Your task to perform on an android device: Open calendar and show me the second week of next month Image 0: 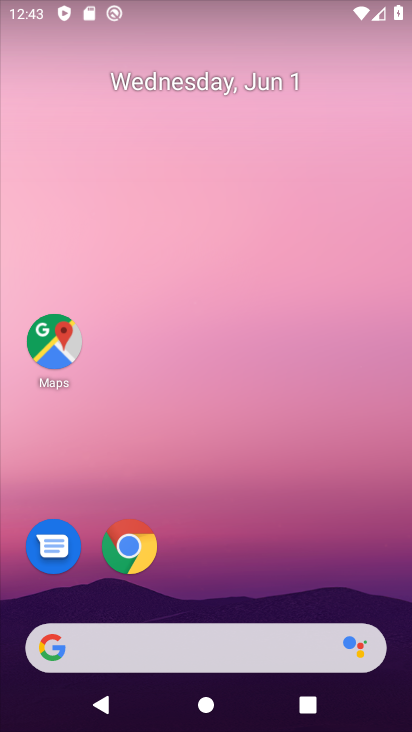
Step 0: drag from (243, 583) to (116, 101)
Your task to perform on an android device: Open calendar and show me the second week of next month Image 1: 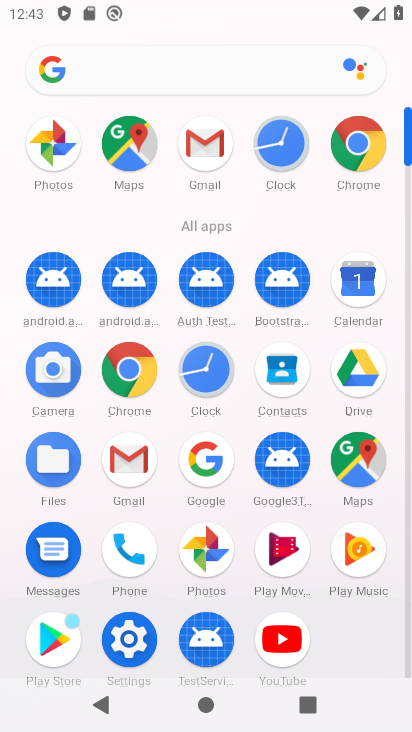
Step 1: click (360, 287)
Your task to perform on an android device: Open calendar and show me the second week of next month Image 2: 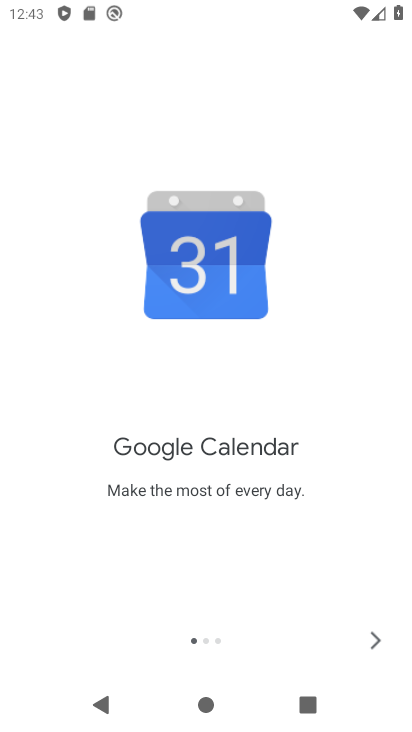
Step 2: click (379, 641)
Your task to perform on an android device: Open calendar and show me the second week of next month Image 3: 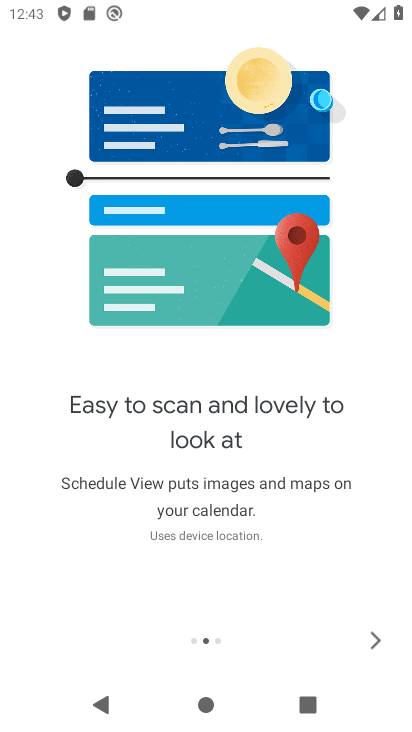
Step 3: drag from (307, 511) to (79, 525)
Your task to perform on an android device: Open calendar and show me the second week of next month Image 4: 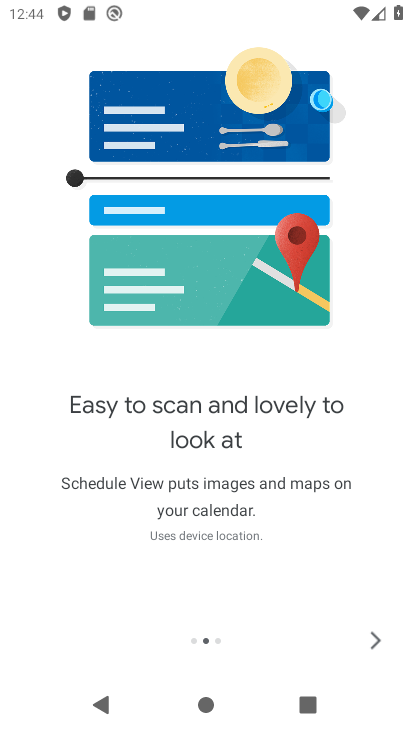
Step 4: click (384, 641)
Your task to perform on an android device: Open calendar and show me the second week of next month Image 5: 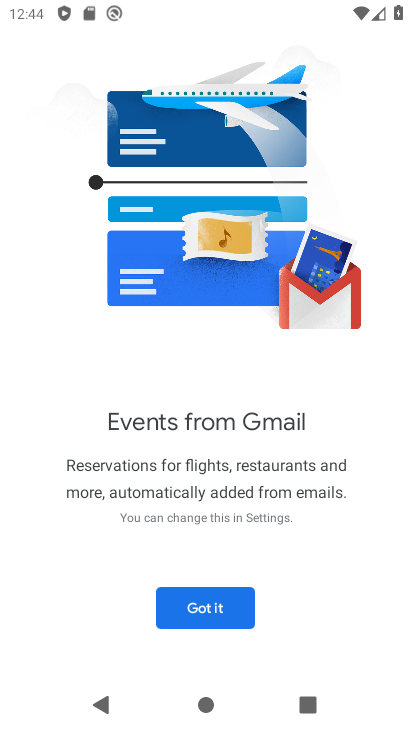
Step 5: click (196, 603)
Your task to perform on an android device: Open calendar and show me the second week of next month Image 6: 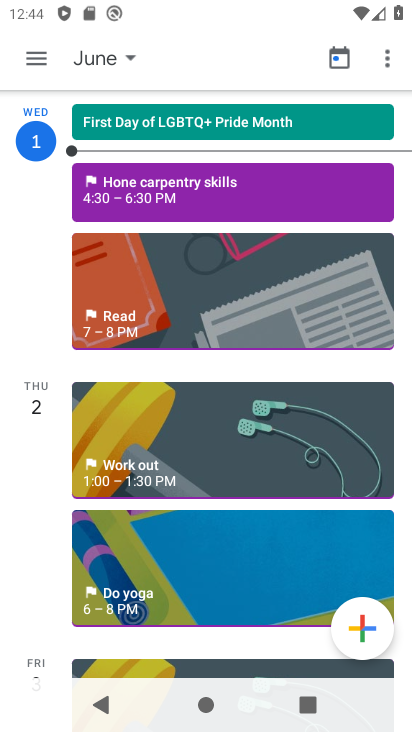
Step 6: click (118, 56)
Your task to perform on an android device: Open calendar and show me the second week of next month Image 7: 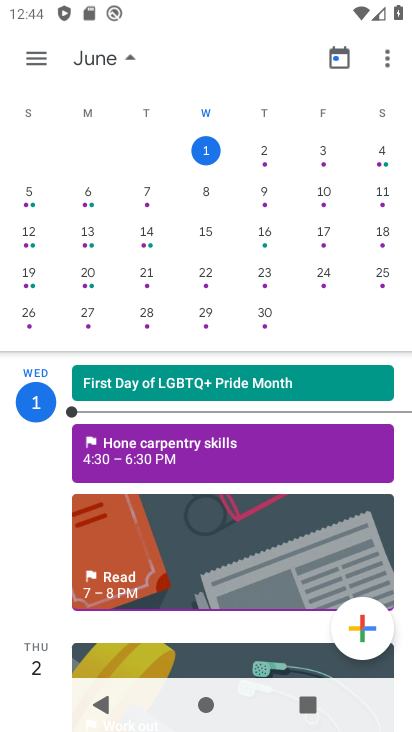
Step 7: drag from (314, 262) to (0, 240)
Your task to perform on an android device: Open calendar and show me the second week of next month Image 8: 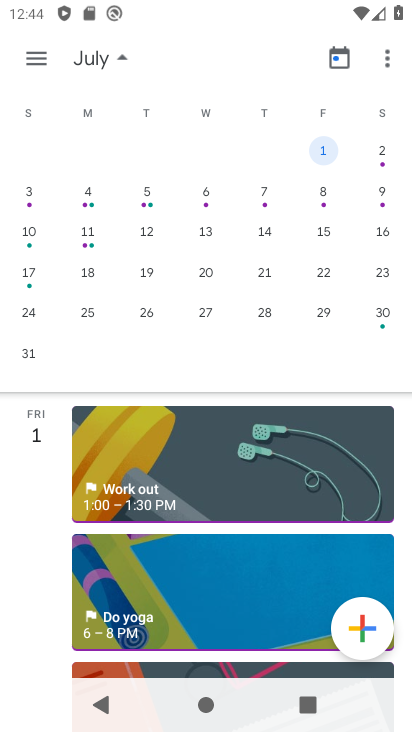
Step 8: click (32, 190)
Your task to perform on an android device: Open calendar and show me the second week of next month Image 9: 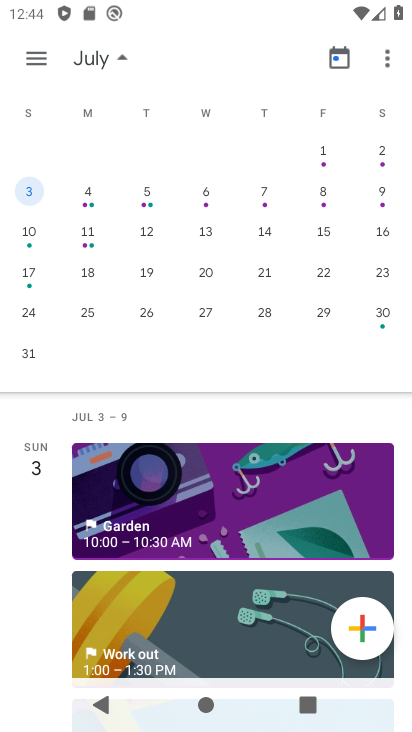
Step 9: click (37, 54)
Your task to perform on an android device: Open calendar and show me the second week of next month Image 10: 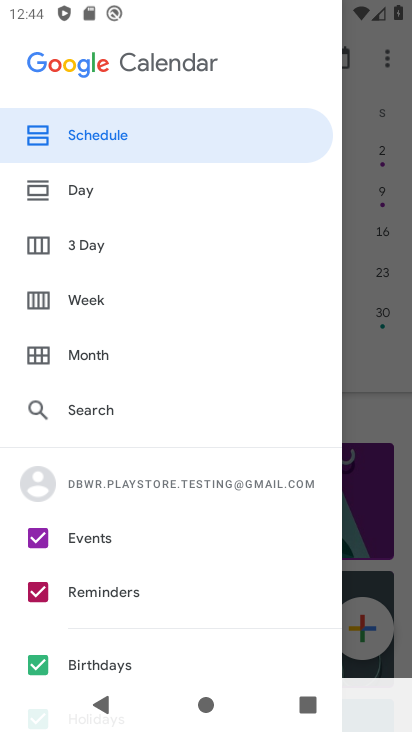
Step 10: click (60, 310)
Your task to perform on an android device: Open calendar and show me the second week of next month Image 11: 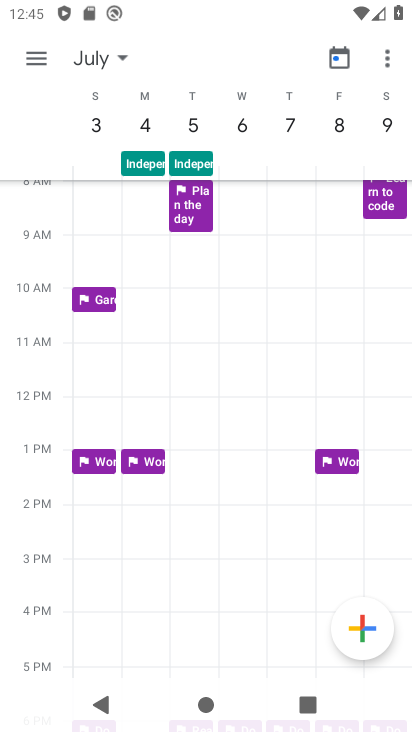
Step 11: task complete